Your task to perform on an android device: turn on showing notifications on the lock screen Image 0: 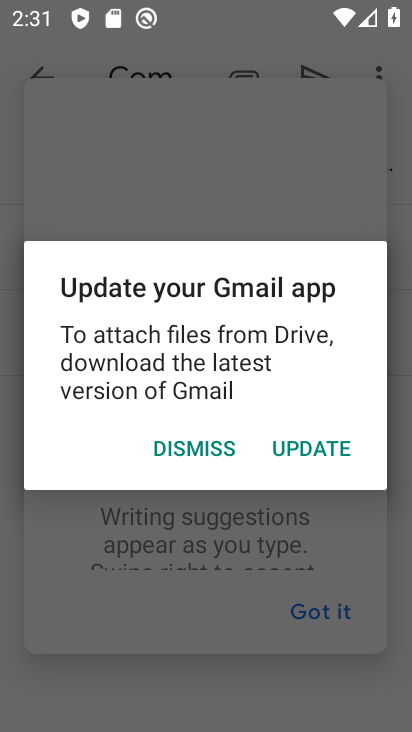
Step 0: press home button
Your task to perform on an android device: turn on showing notifications on the lock screen Image 1: 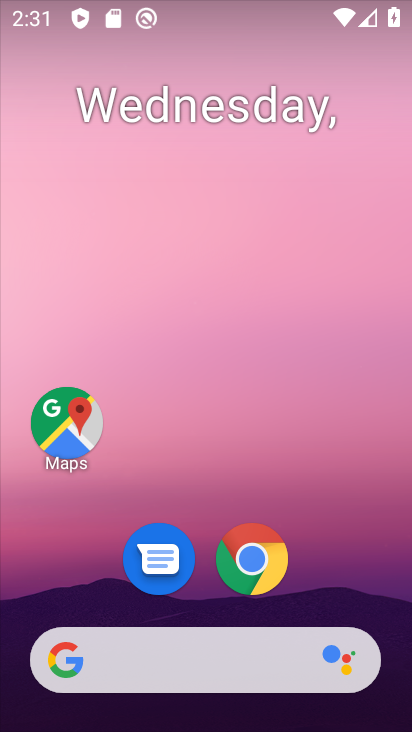
Step 1: drag from (239, 724) to (232, 20)
Your task to perform on an android device: turn on showing notifications on the lock screen Image 2: 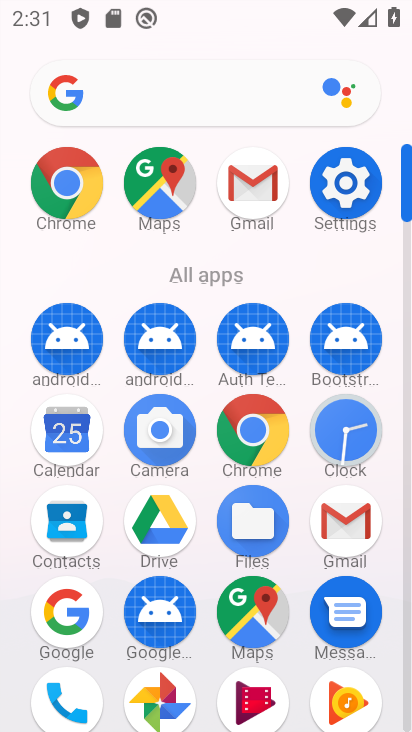
Step 2: click (347, 181)
Your task to perform on an android device: turn on showing notifications on the lock screen Image 3: 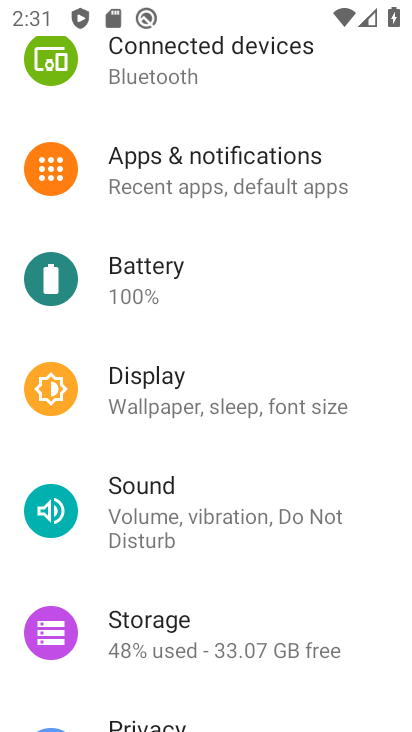
Step 3: click (217, 173)
Your task to perform on an android device: turn on showing notifications on the lock screen Image 4: 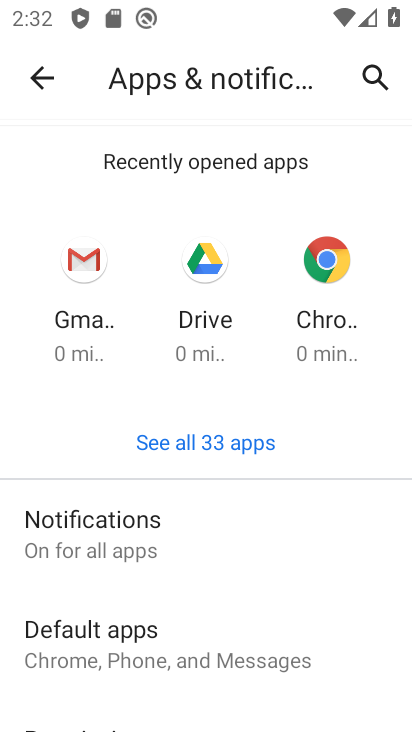
Step 4: drag from (164, 603) to (177, 441)
Your task to perform on an android device: turn on showing notifications on the lock screen Image 5: 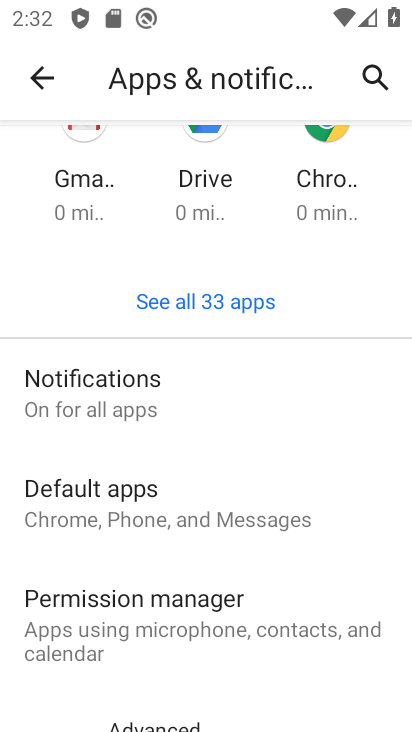
Step 5: click (84, 392)
Your task to perform on an android device: turn on showing notifications on the lock screen Image 6: 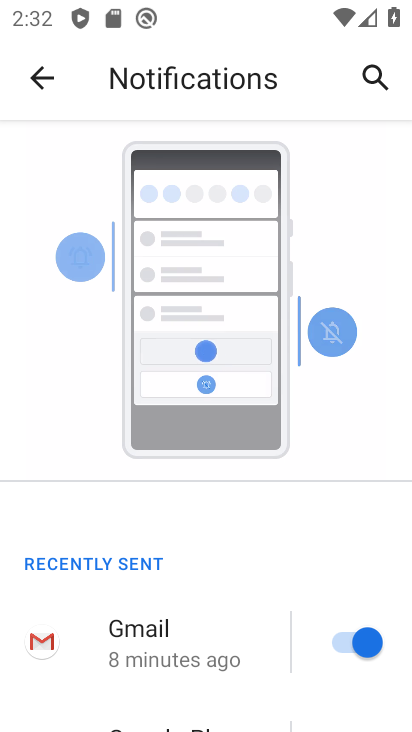
Step 6: task complete